Your task to perform on an android device: check out phone information Image 0: 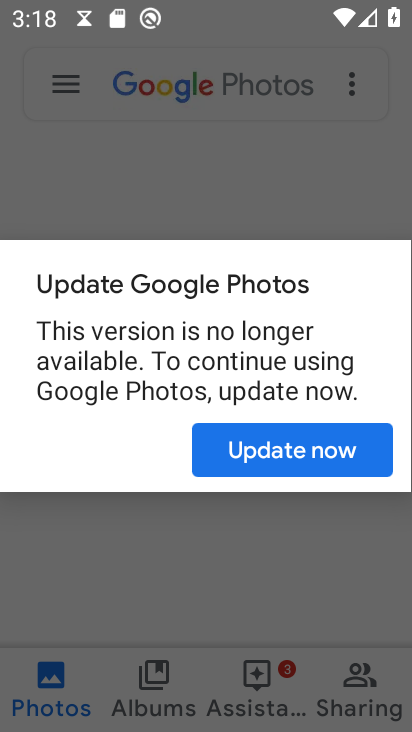
Step 0: press home button
Your task to perform on an android device: check out phone information Image 1: 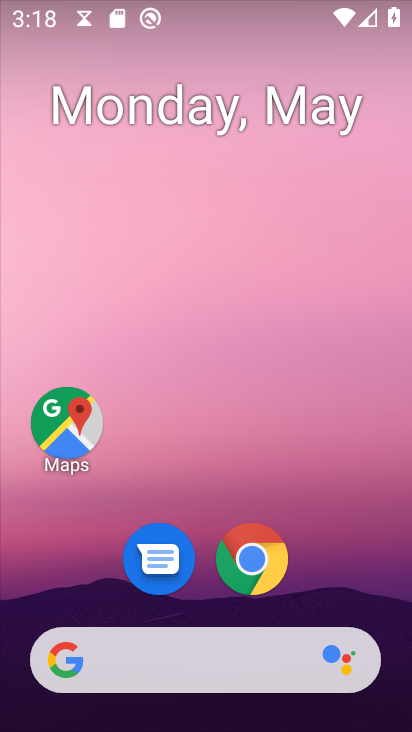
Step 1: drag from (263, 583) to (331, 289)
Your task to perform on an android device: check out phone information Image 2: 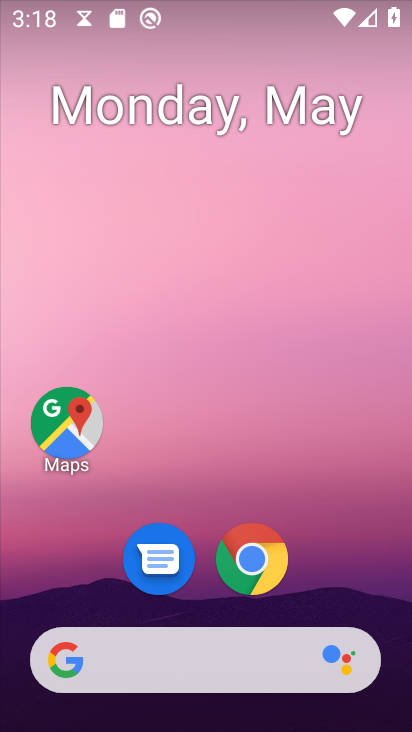
Step 2: drag from (234, 590) to (265, 231)
Your task to perform on an android device: check out phone information Image 3: 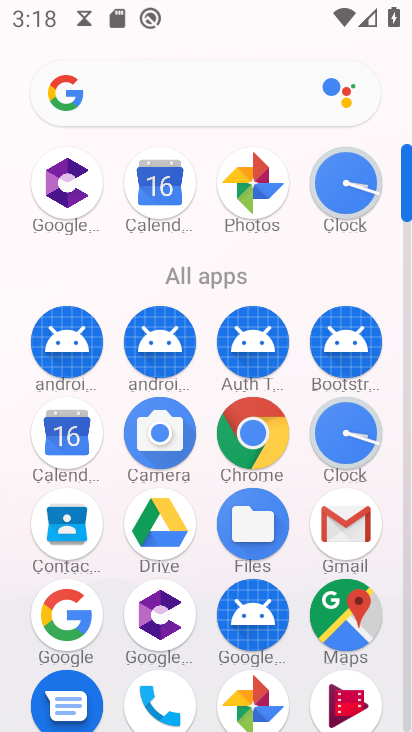
Step 3: drag from (179, 591) to (259, 214)
Your task to perform on an android device: check out phone information Image 4: 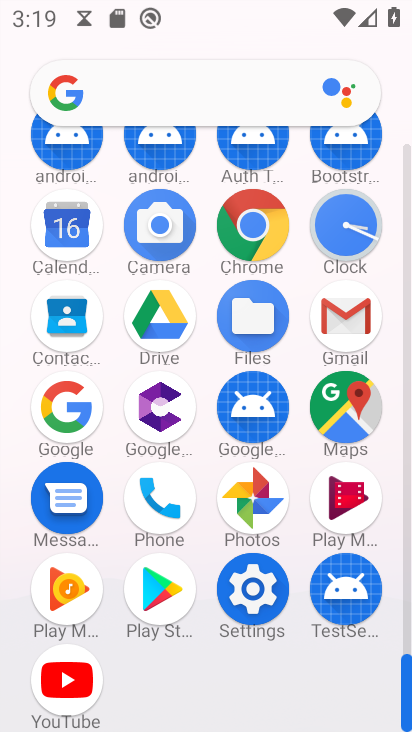
Step 4: click (268, 578)
Your task to perform on an android device: check out phone information Image 5: 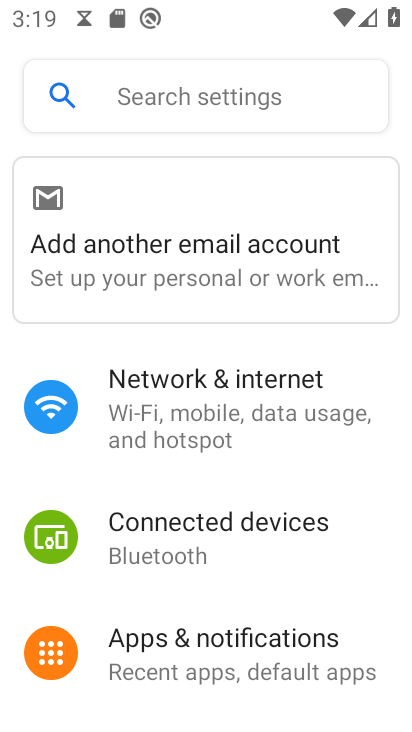
Step 5: drag from (263, 624) to (351, 191)
Your task to perform on an android device: check out phone information Image 6: 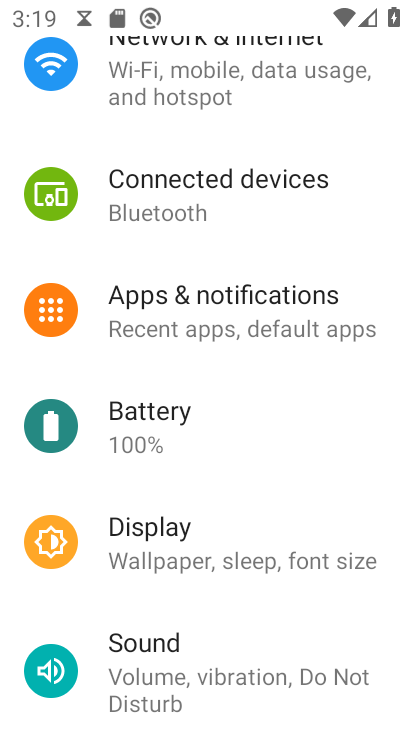
Step 6: drag from (195, 491) to (290, 109)
Your task to perform on an android device: check out phone information Image 7: 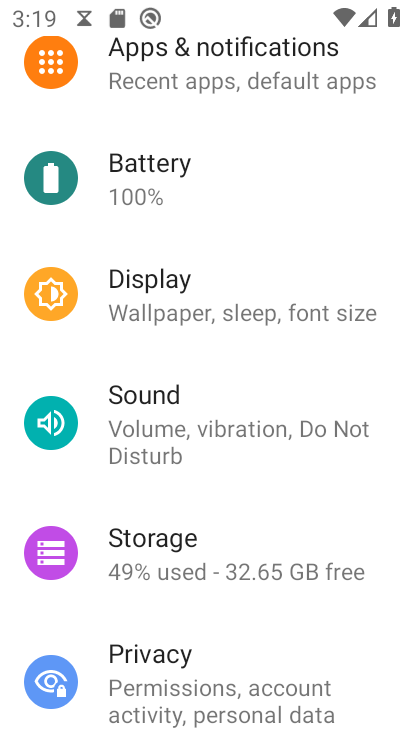
Step 7: drag from (181, 601) to (312, 135)
Your task to perform on an android device: check out phone information Image 8: 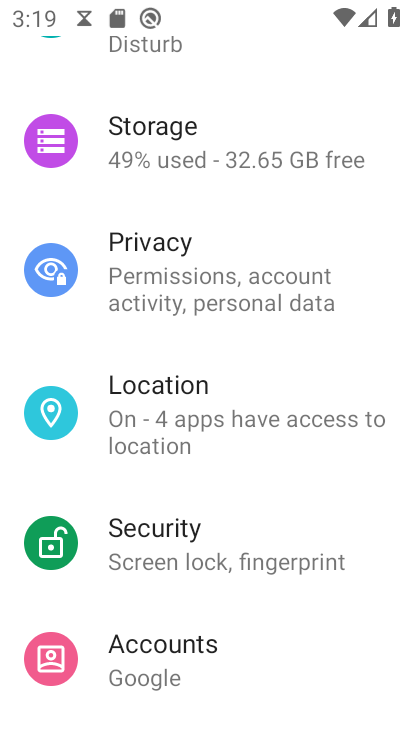
Step 8: drag from (179, 617) to (248, 392)
Your task to perform on an android device: check out phone information Image 9: 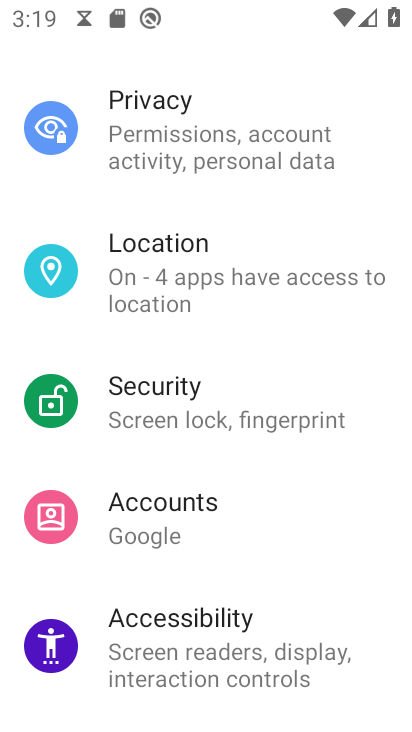
Step 9: click (164, 651)
Your task to perform on an android device: check out phone information Image 10: 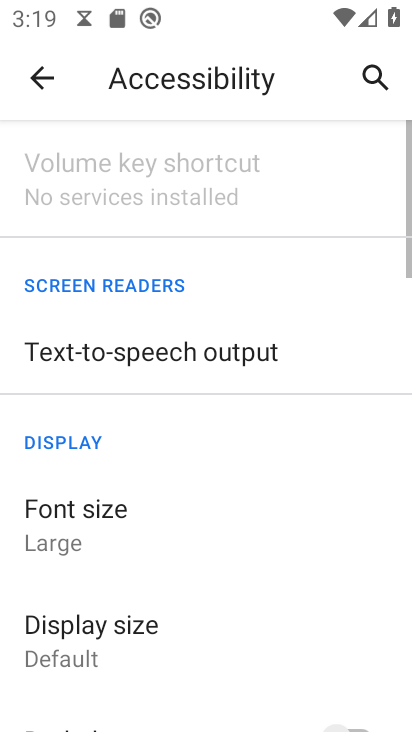
Step 10: task complete